Your task to perform on an android device: Open Android settings Image 0: 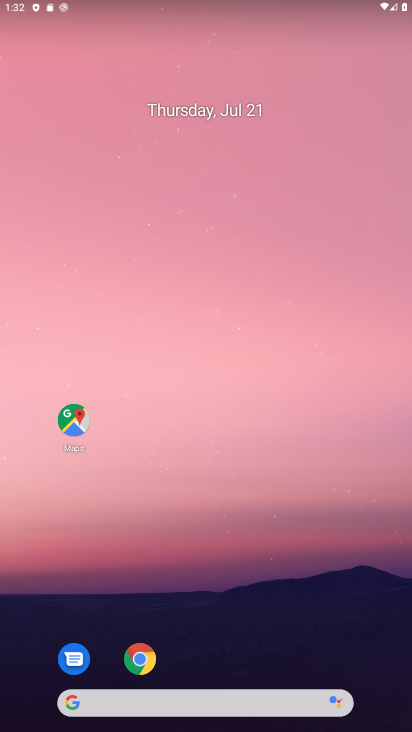
Step 0: drag from (212, 692) to (173, 158)
Your task to perform on an android device: Open Android settings Image 1: 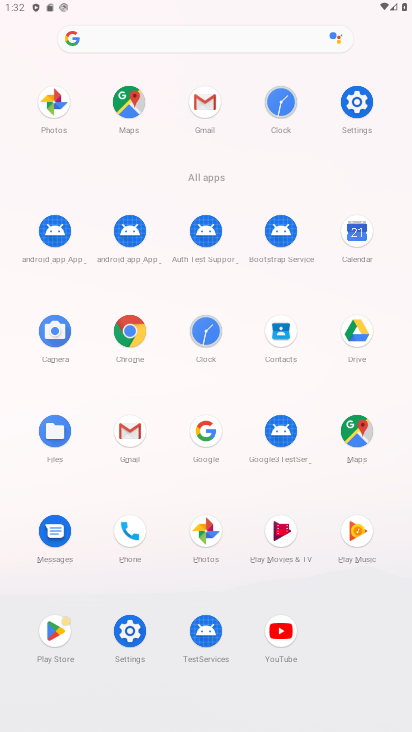
Step 1: click (344, 112)
Your task to perform on an android device: Open Android settings Image 2: 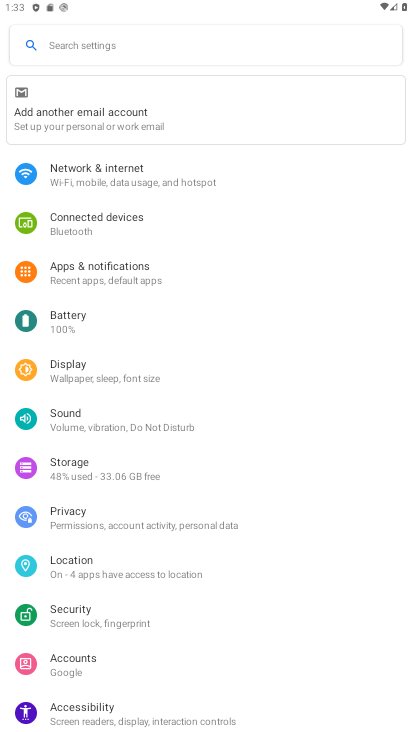
Step 2: task complete